Your task to perform on an android device: Clear the cart on costco.com. Search for "amazon basics triple a" on costco.com, select the first entry, add it to the cart, then select checkout. Image 0: 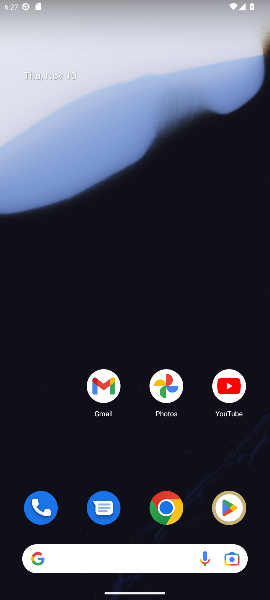
Step 0: click (171, 508)
Your task to perform on an android device: Clear the cart on costco.com. Search for "amazon basics triple a" on costco.com, select the first entry, add it to the cart, then select checkout. Image 1: 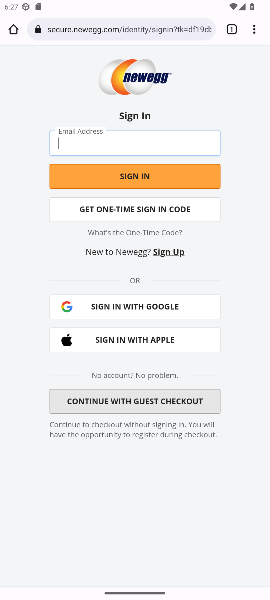
Step 1: click (164, 25)
Your task to perform on an android device: Clear the cart on costco.com. Search for "amazon basics triple a" on costco.com, select the first entry, add it to the cart, then select checkout. Image 2: 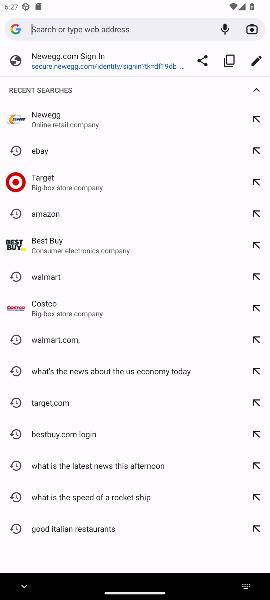
Step 2: click (49, 299)
Your task to perform on an android device: Clear the cart on costco.com. Search for "amazon basics triple a" on costco.com, select the first entry, add it to the cart, then select checkout. Image 3: 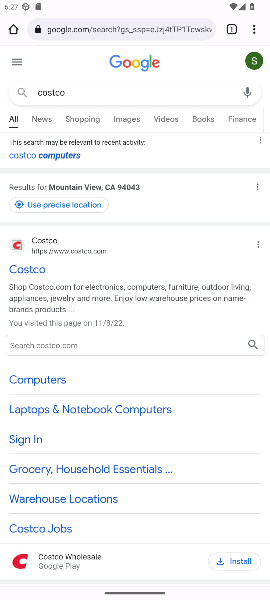
Step 3: click (32, 269)
Your task to perform on an android device: Clear the cart on costco.com. Search for "amazon basics triple a" on costco.com, select the first entry, add it to the cart, then select checkout. Image 4: 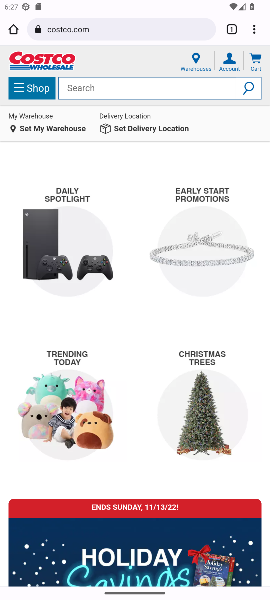
Step 4: click (134, 83)
Your task to perform on an android device: Clear the cart on costco.com. Search for "amazon basics triple a" on costco.com, select the first entry, add it to the cart, then select checkout. Image 5: 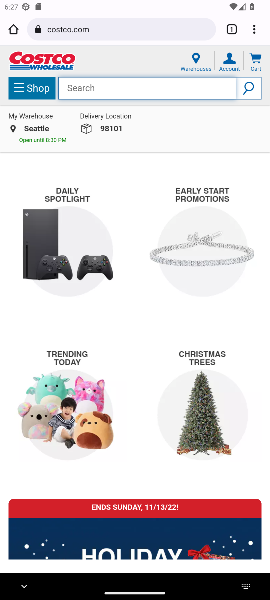
Step 5: type "amazon basics triple a"
Your task to perform on an android device: Clear the cart on costco.com. Search for "amazon basics triple a" on costco.com, select the first entry, add it to the cart, then select checkout. Image 6: 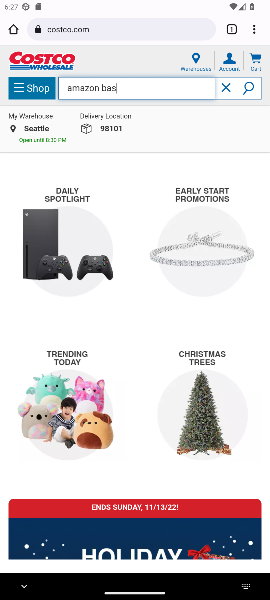
Step 6: press enter
Your task to perform on an android device: Clear the cart on costco.com. Search for "amazon basics triple a" on costco.com, select the first entry, add it to the cart, then select checkout. Image 7: 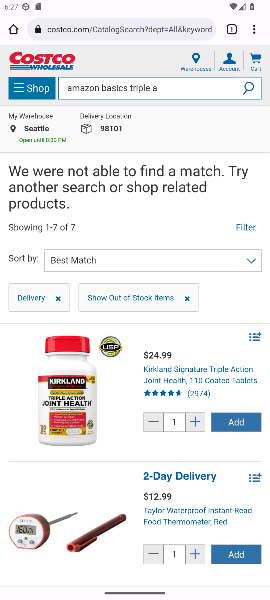
Step 7: task complete